Your task to perform on an android device: turn on improve location accuracy Image 0: 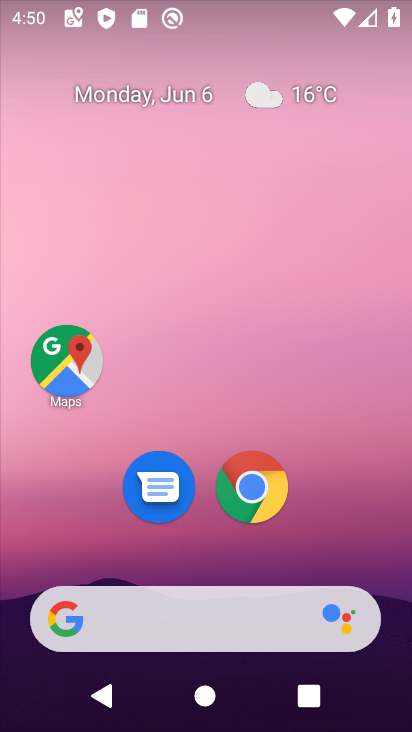
Step 0: drag from (321, 494) to (321, 22)
Your task to perform on an android device: turn on improve location accuracy Image 1: 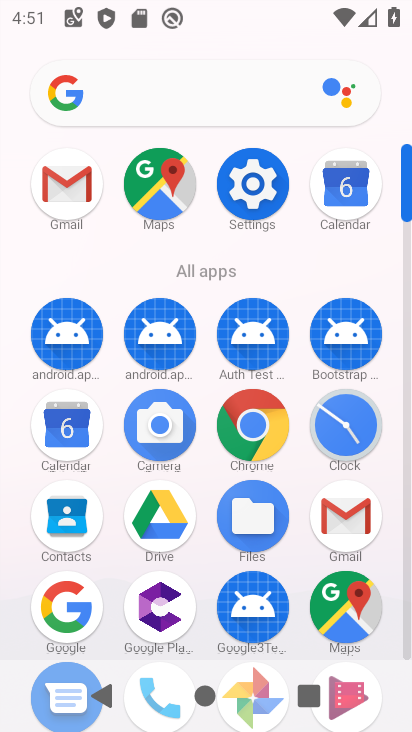
Step 1: click (264, 180)
Your task to perform on an android device: turn on improve location accuracy Image 2: 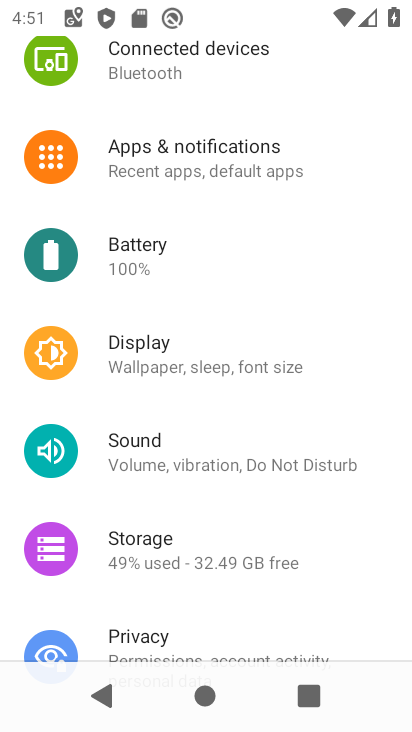
Step 2: drag from (217, 500) to (210, 140)
Your task to perform on an android device: turn on improve location accuracy Image 3: 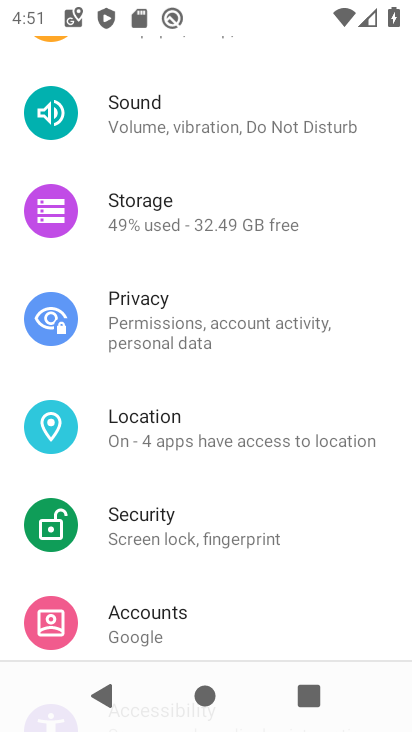
Step 3: click (189, 419)
Your task to perform on an android device: turn on improve location accuracy Image 4: 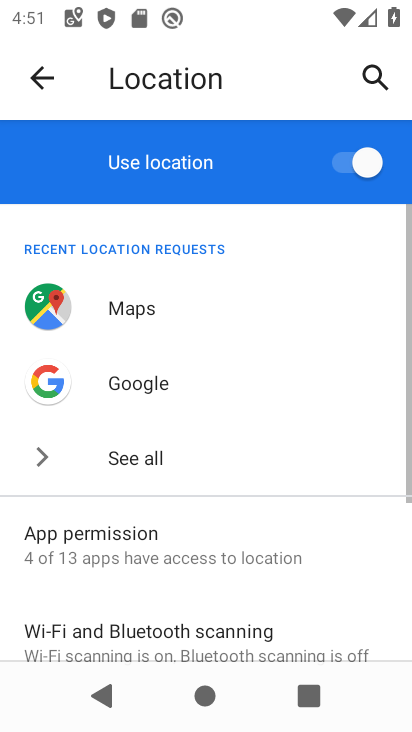
Step 4: click (204, 544)
Your task to perform on an android device: turn on improve location accuracy Image 5: 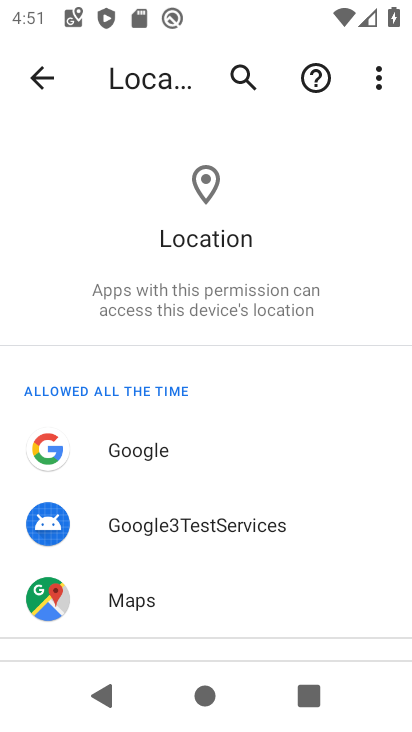
Step 5: drag from (212, 569) to (232, 114)
Your task to perform on an android device: turn on improve location accuracy Image 6: 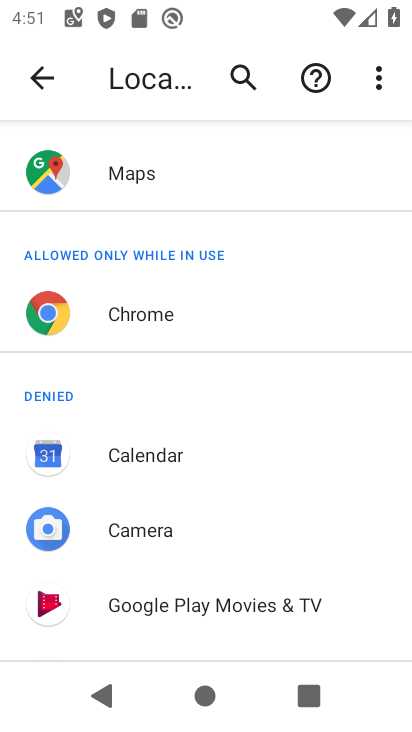
Step 6: drag from (235, 557) to (225, 124)
Your task to perform on an android device: turn on improve location accuracy Image 7: 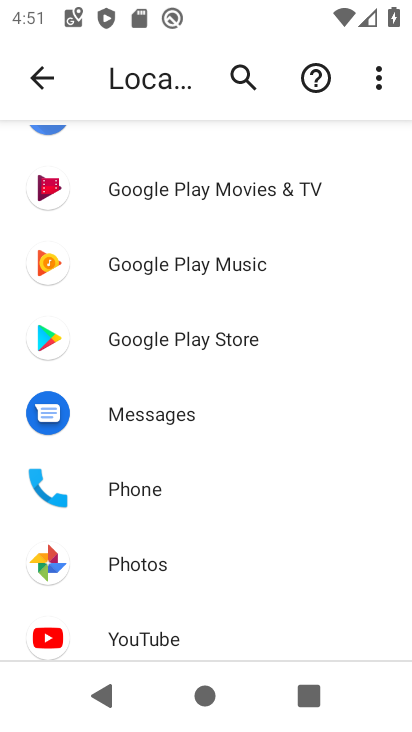
Step 7: drag from (221, 580) to (212, 178)
Your task to perform on an android device: turn on improve location accuracy Image 8: 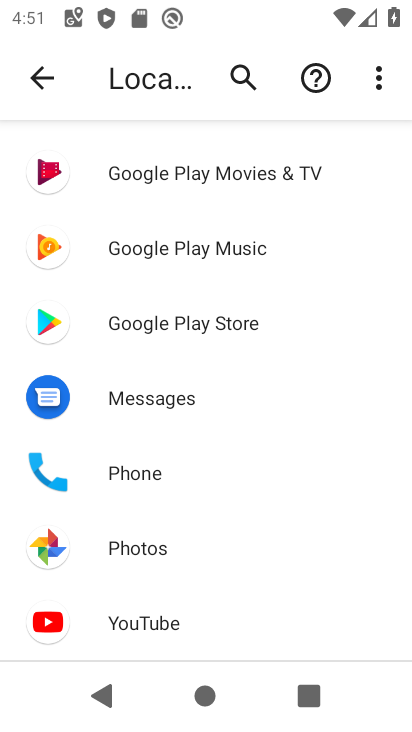
Step 8: click (52, 77)
Your task to perform on an android device: turn on improve location accuracy Image 9: 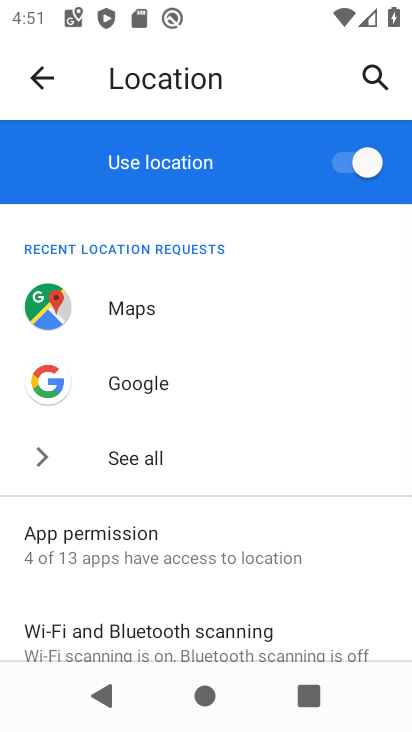
Step 9: drag from (136, 556) to (196, 163)
Your task to perform on an android device: turn on improve location accuracy Image 10: 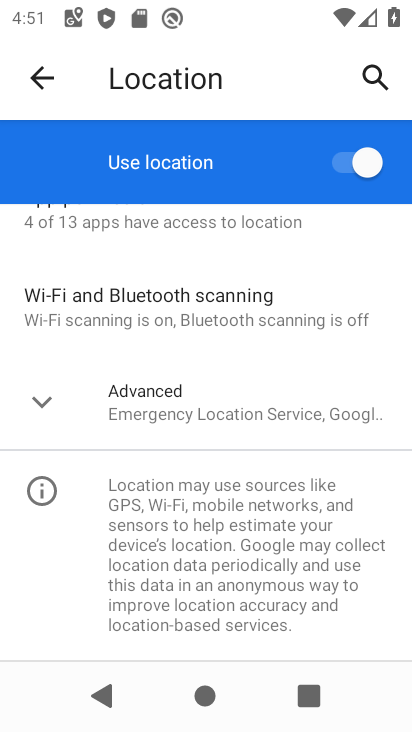
Step 10: click (45, 407)
Your task to perform on an android device: turn on improve location accuracy Image 11: 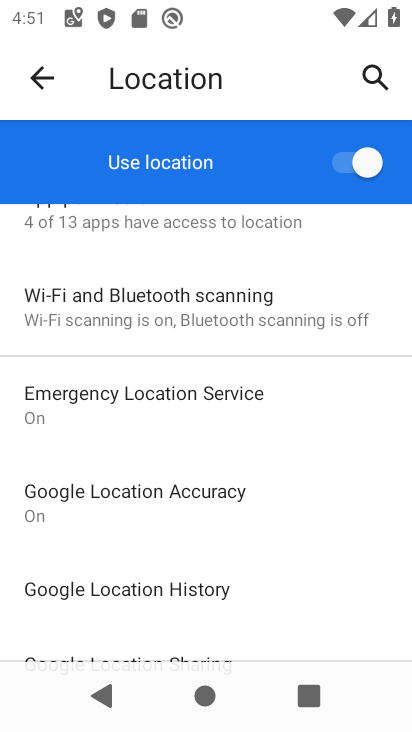
Step 11: click (139, 509)
Your task to perform on an android device: turn on improve location accuracy Image 12: 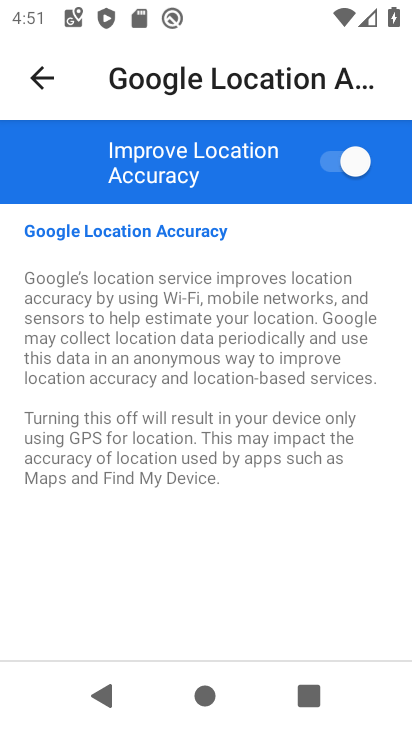
Step 12: task complete